Your task to perform on an android device: Go to Google maps Image 0: 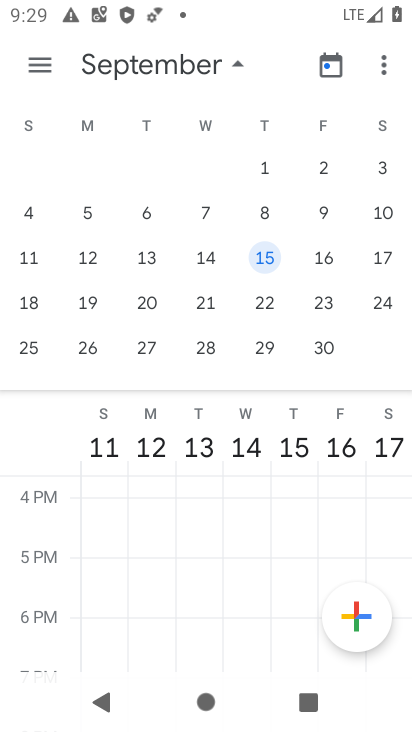
Step 0: press home button
Your task to perform on an android device: Go to Google maps Image 1: 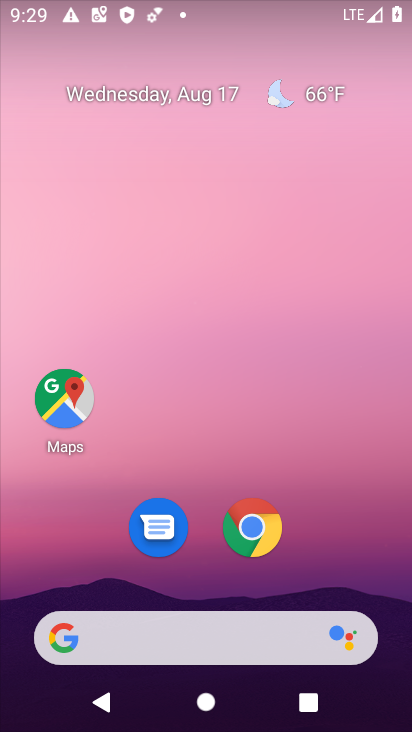
Step 1: click (47, 399)
Your task to perform on an android device: Go to Google maps Image 2: 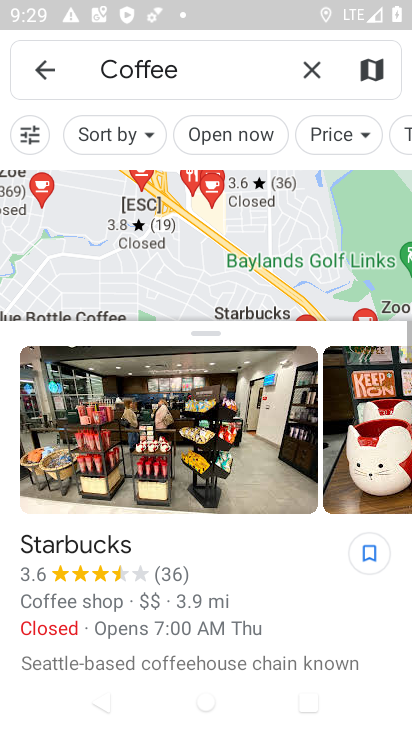
Step 2: task complete